Your task to perform on an android device: Go to Android settings Image 0: 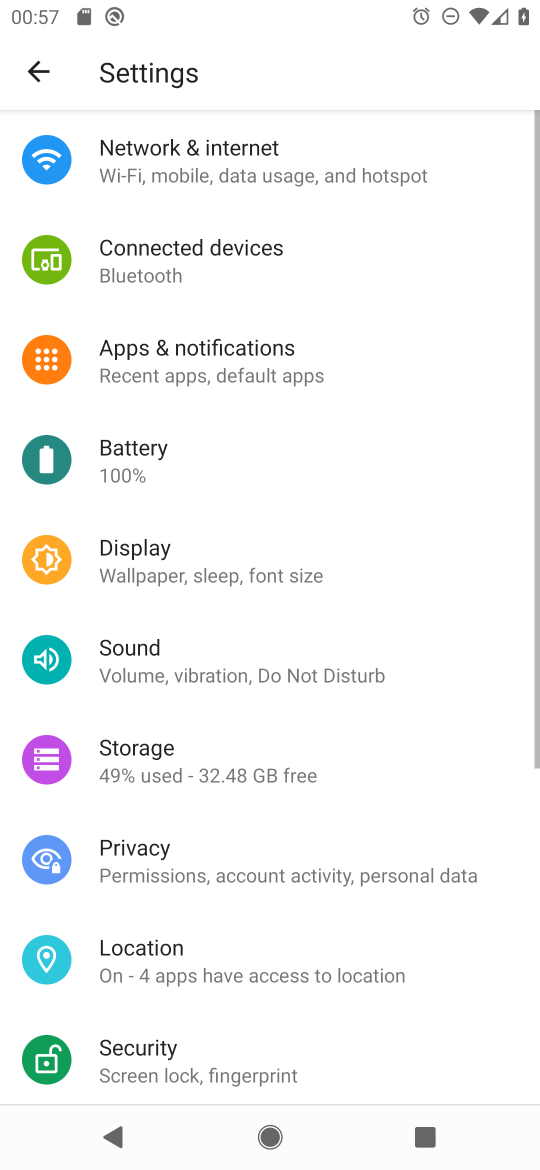
Step 0: drag from (295, 979) to (399, 241)
Your task to perform on an android device: Go to Android settings Image 1: 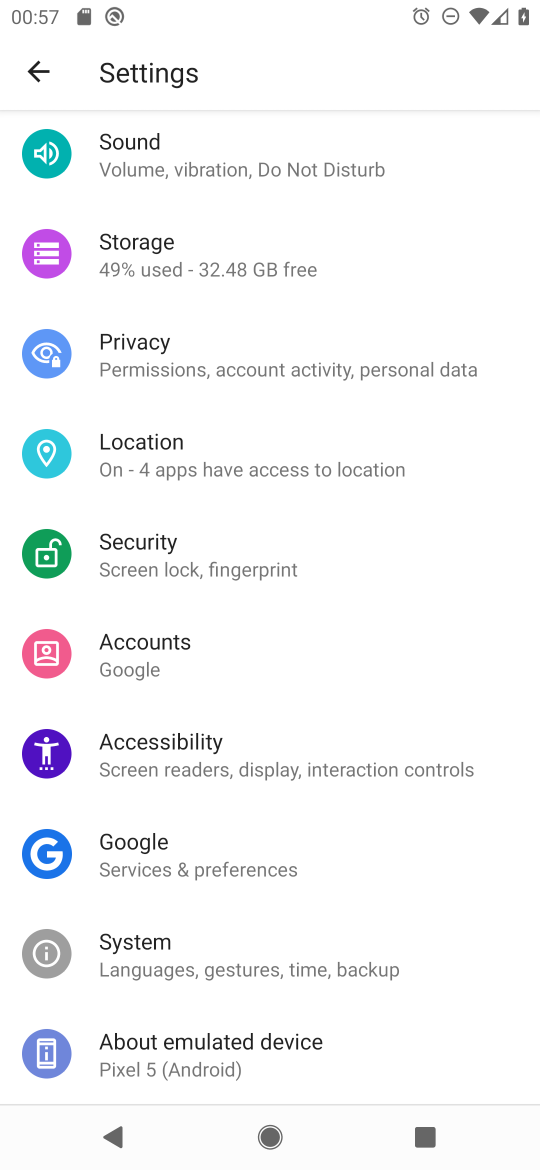
Step 1: task complete